Your task to perform on an android device: View the shopping cart on amazon.com. Add energizer triple a to the cart on amazon.com Image 0: 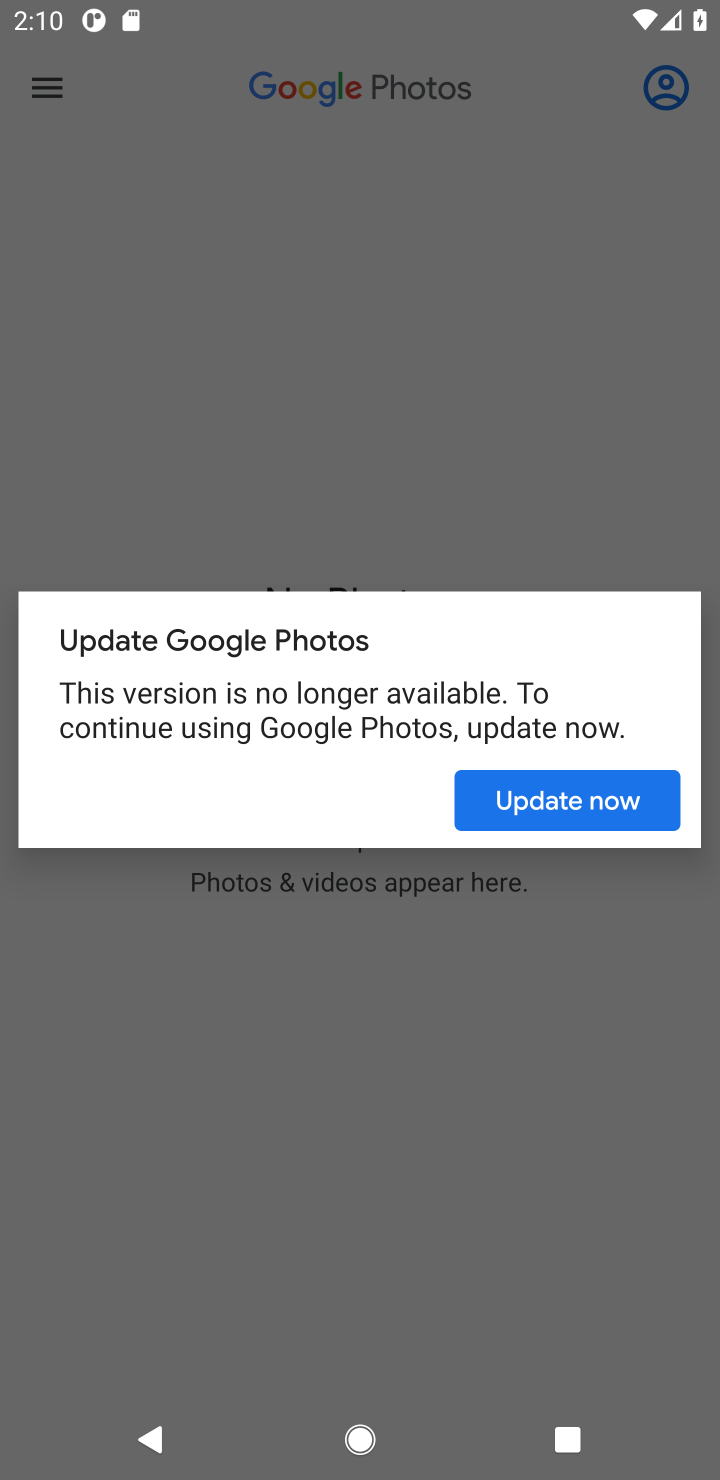
Step 0: press home button
Your task to perform on an android device: View the shopping cart on amazon.com. Add energizer triple a to the cart on amazon.com Image 1: 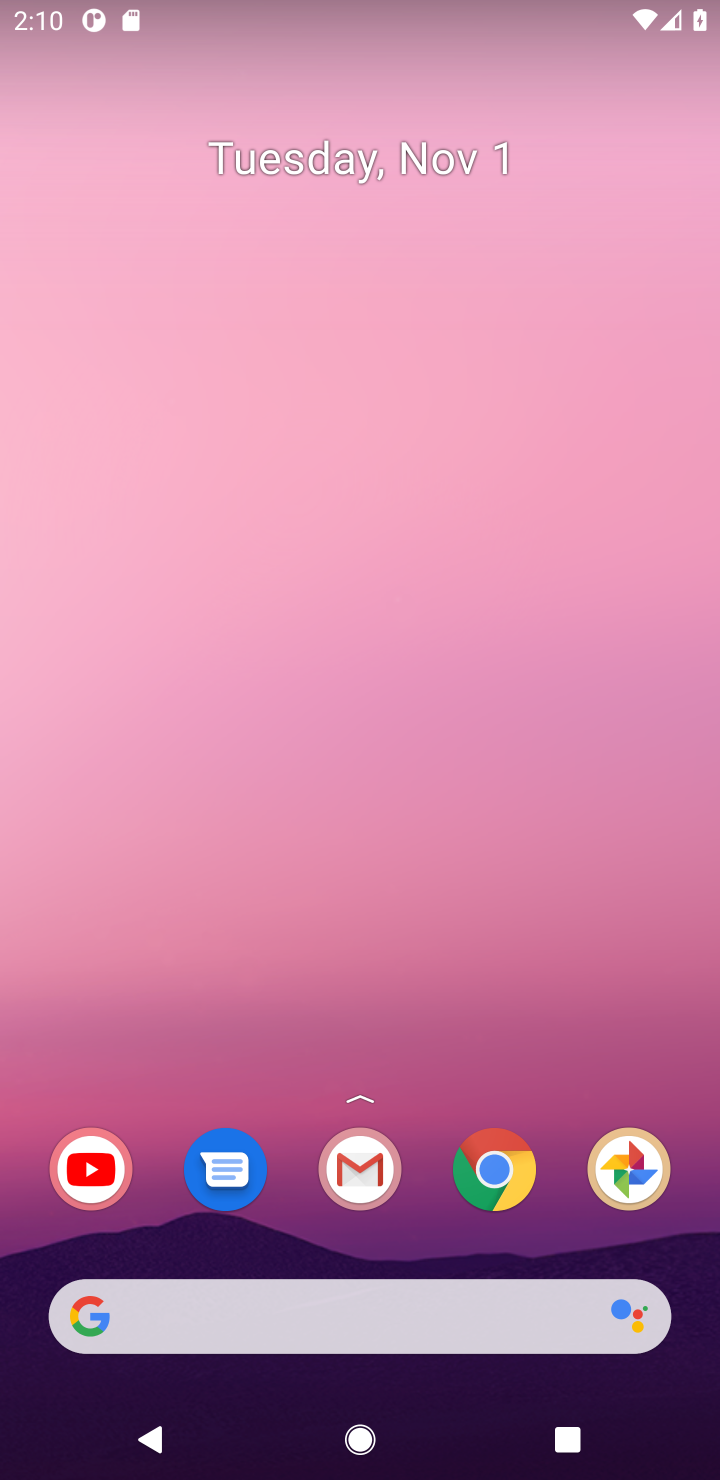
Step 1: drag from (417, 1083) to (424, 45)
Your task to perform on an android device: View the shopping cart on amazon.com. Add energizer triple a to the cart on amazon.com Image 2: 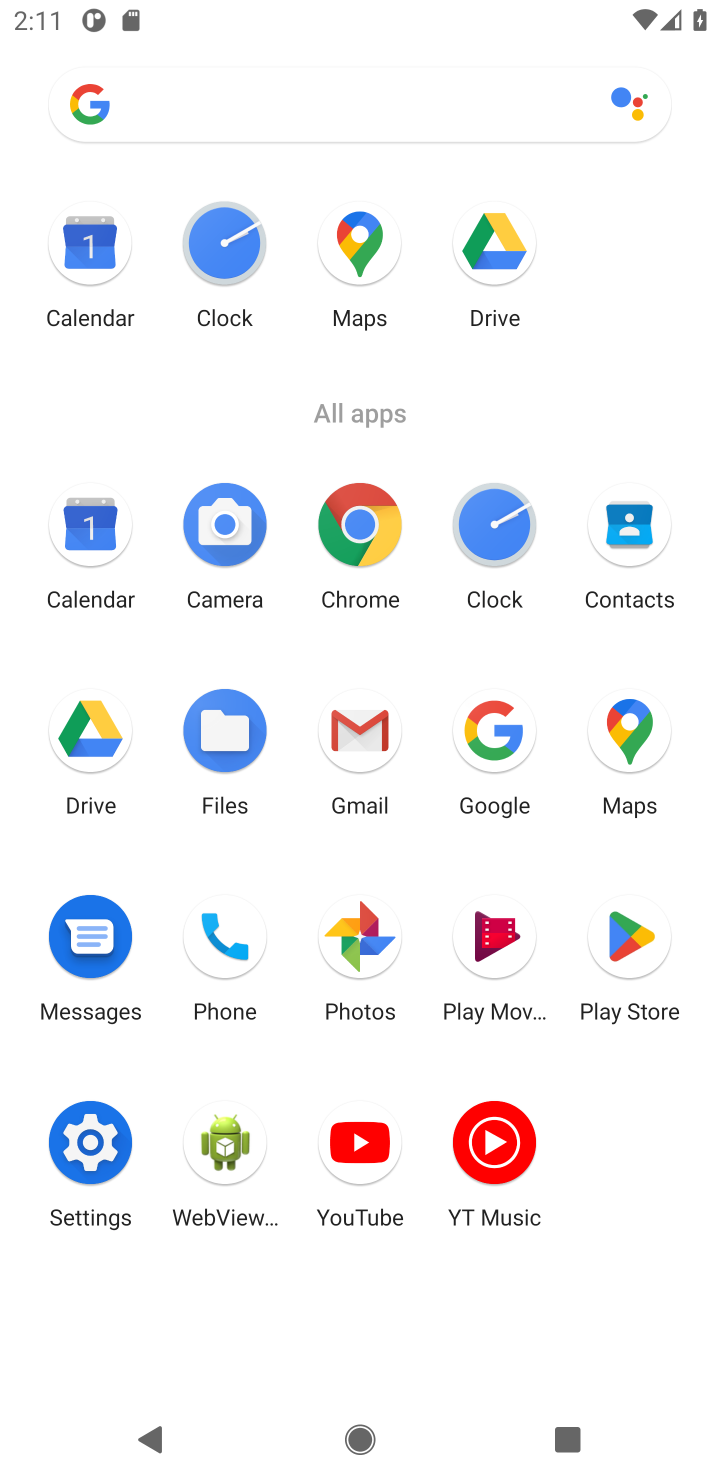
Step 2: click (358, 519)
Your task to perform on an android device: View the shopping cart on amazon.com. Add energizer triple a to the cart on amazon.com Image 3: 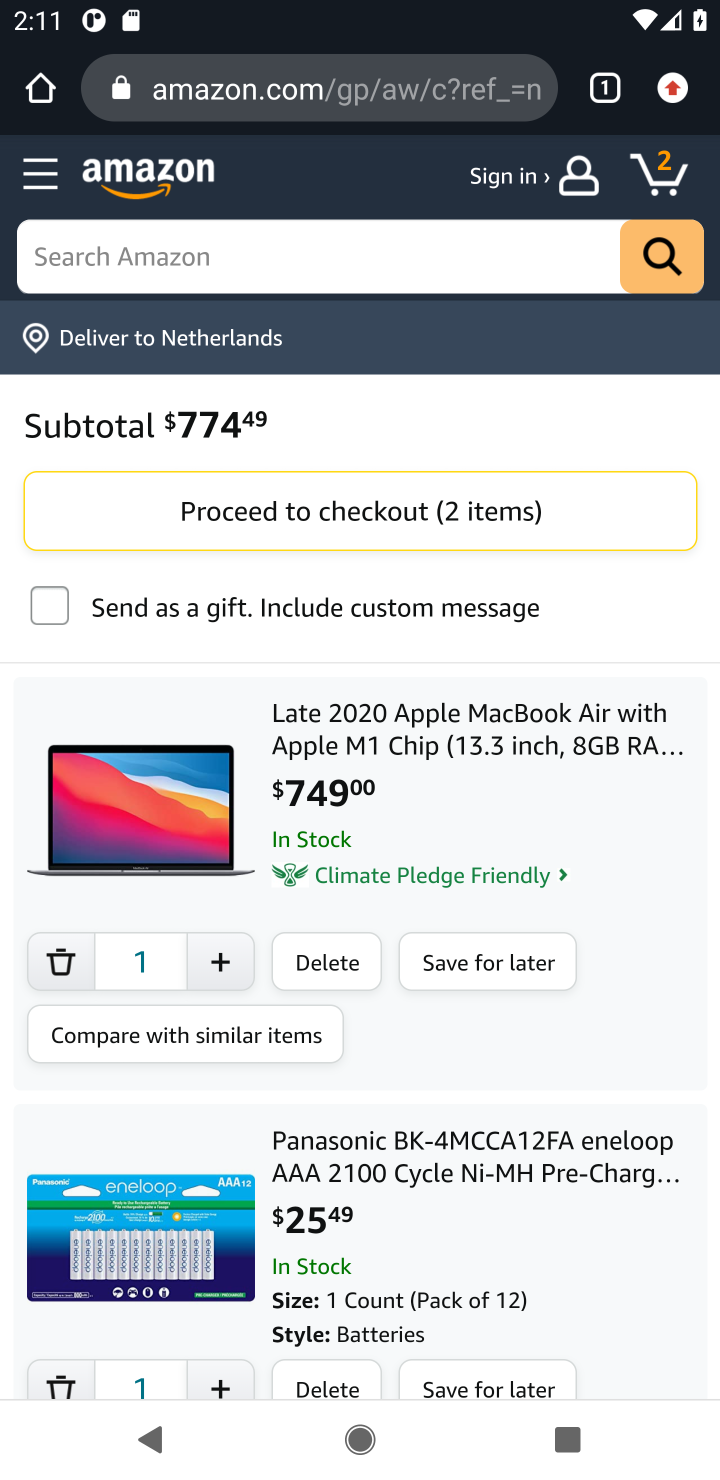
Step 3: click (51, 961)
Your task to perform on an android device: View the shopping cart on amazon.com. Add energizer triple a to the cart on amazon.com Image 4: 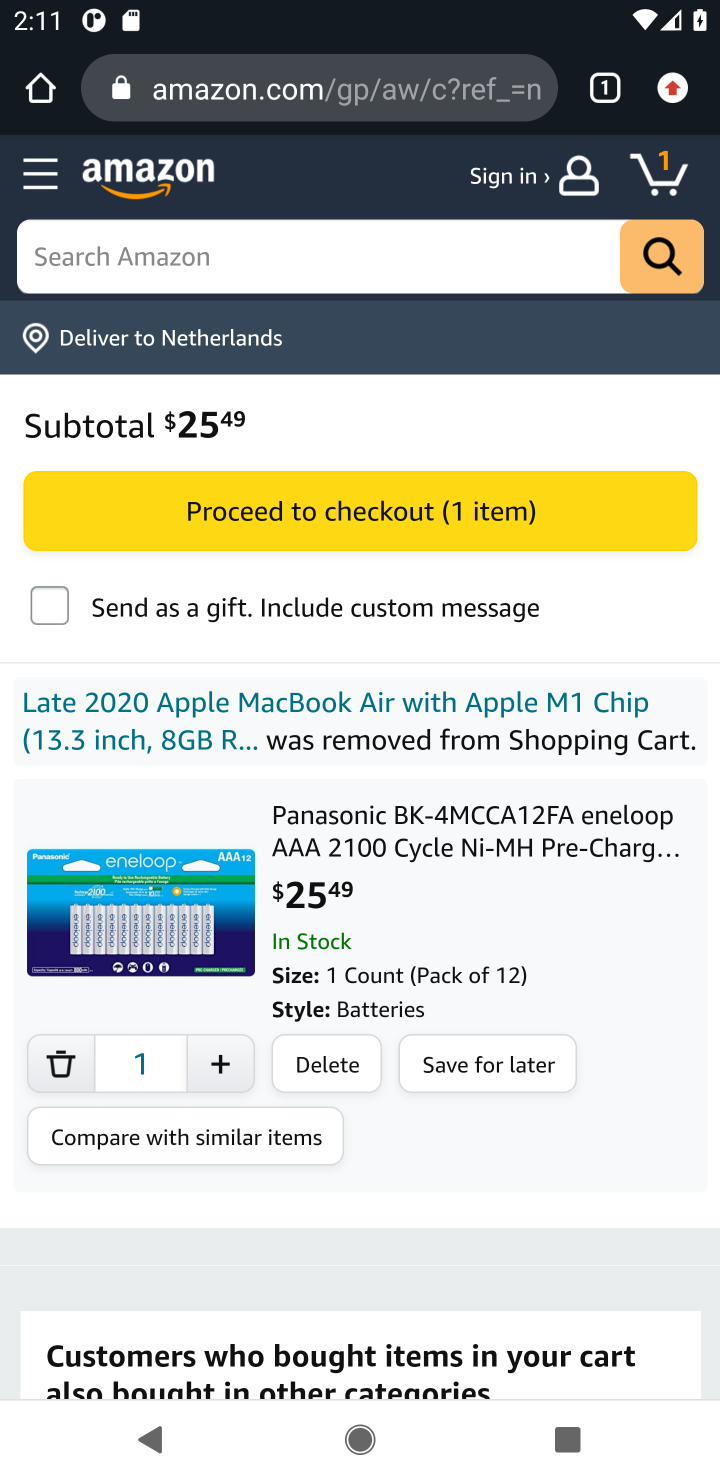
Step 4: click (54, 1068)
Your task to perform on an android device: View the shopping cart on amazon.com. Add energizer triple a to the cart on amazon.com Image 5: 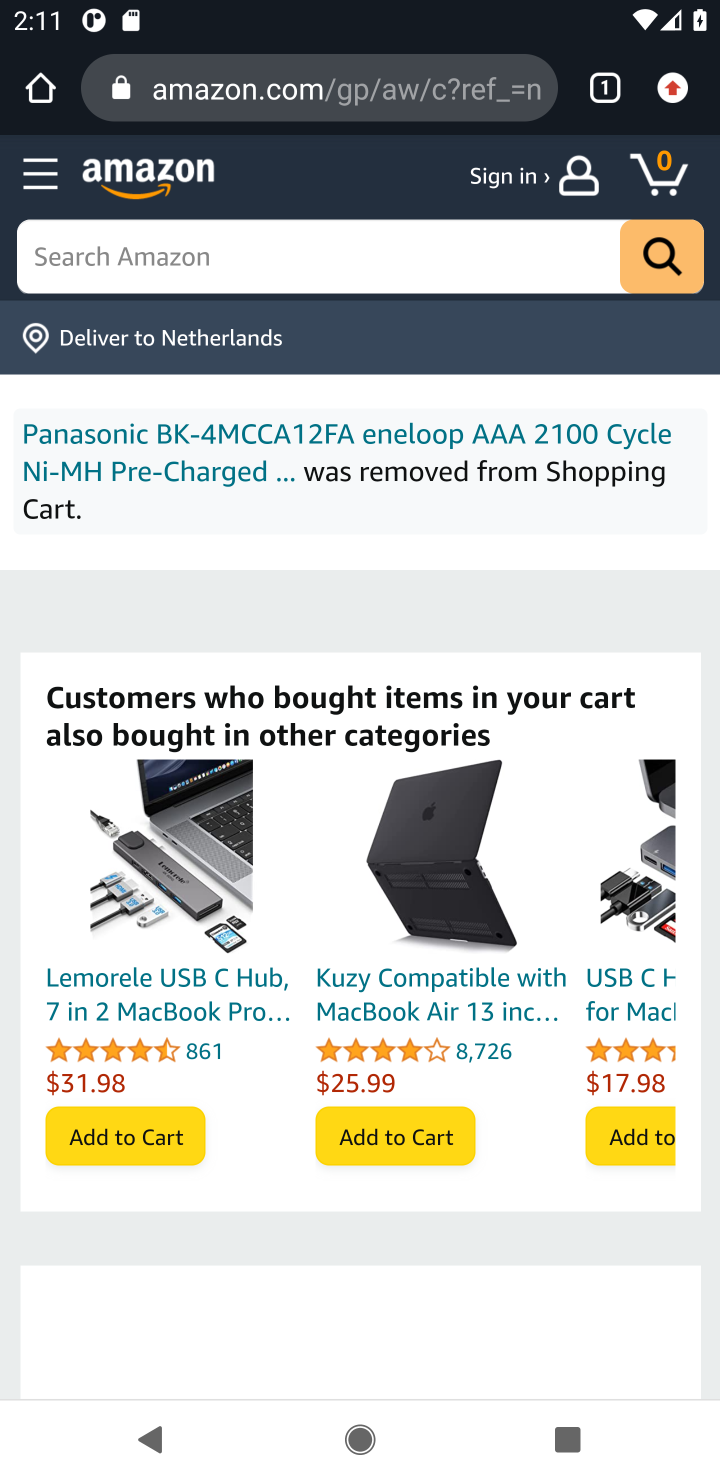
Step 5: click (115, 239)
Your task to perform on an android device: View the shopping cart on amazon.com. Add energizer triple a to the cart on amazon.com Image 6: 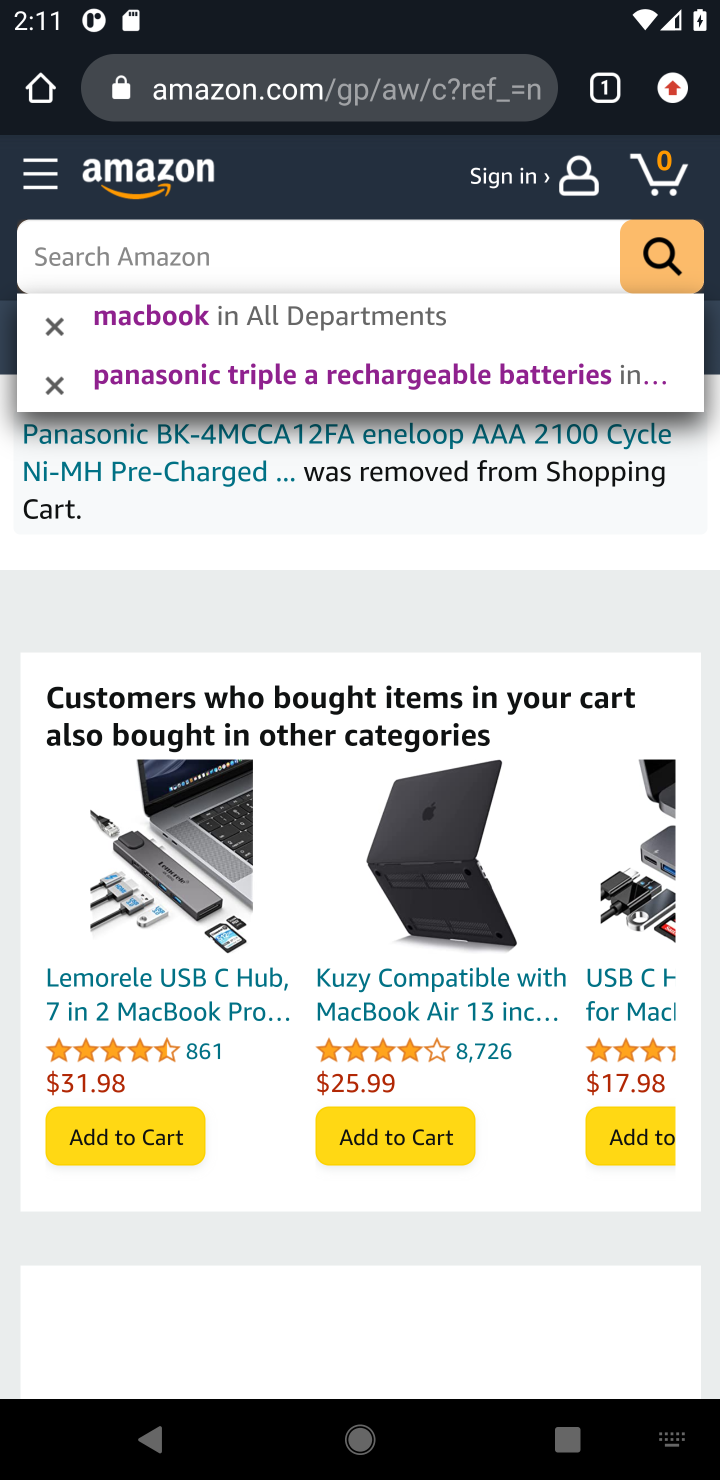
Step 6: click (192, 244)
Your task to perform on an android device: View the shopping cart on amazon.com. Add energizer triple a to the cart on amazon.com Image 7: 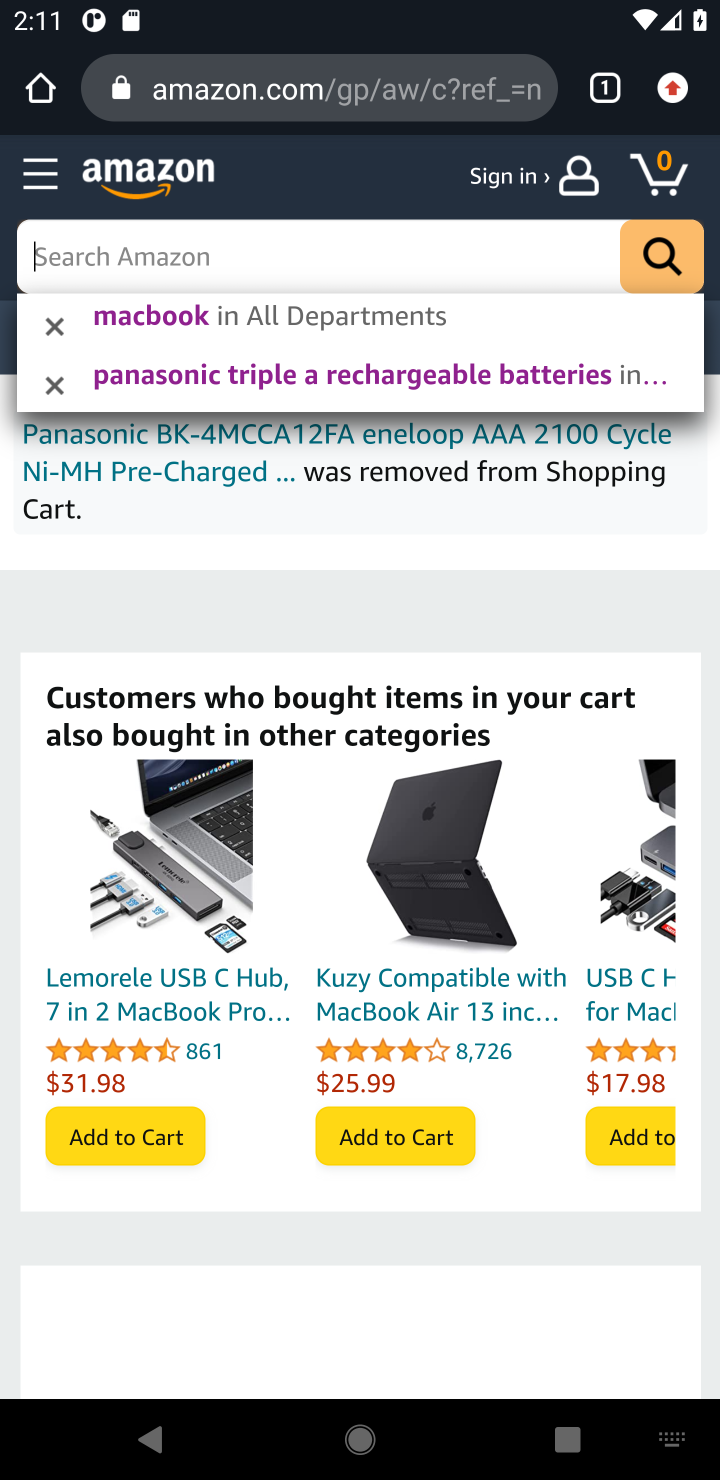
Step 7: type "energizer triple a"
Your task to perform on an android device: View the shopping cart on amazon.com. Add energizer triple a to the cart on amazon.com Image 8: 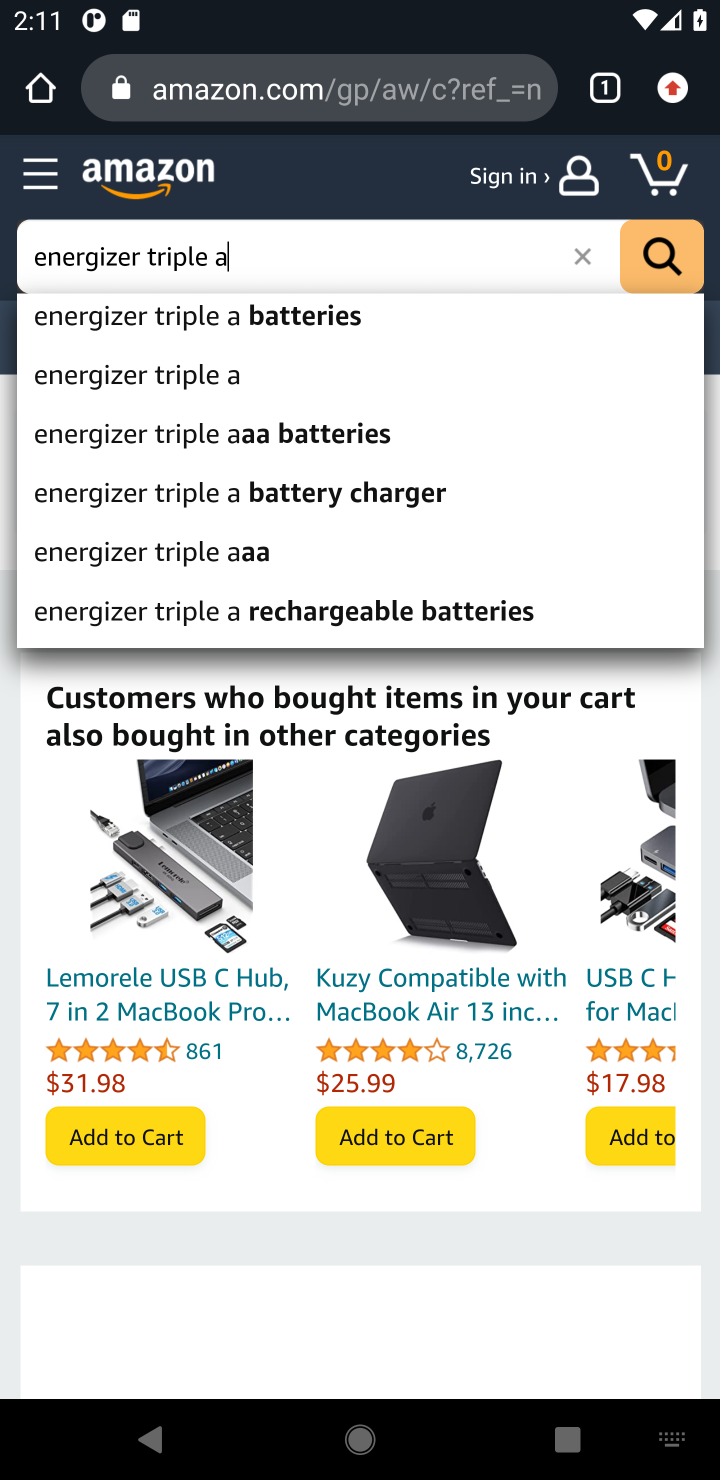
Step 8: type ""
Your task to perform on an android device: View the shopping cart on amazon.com. Add energizer triple a to the cart on amazon.com Image 9: 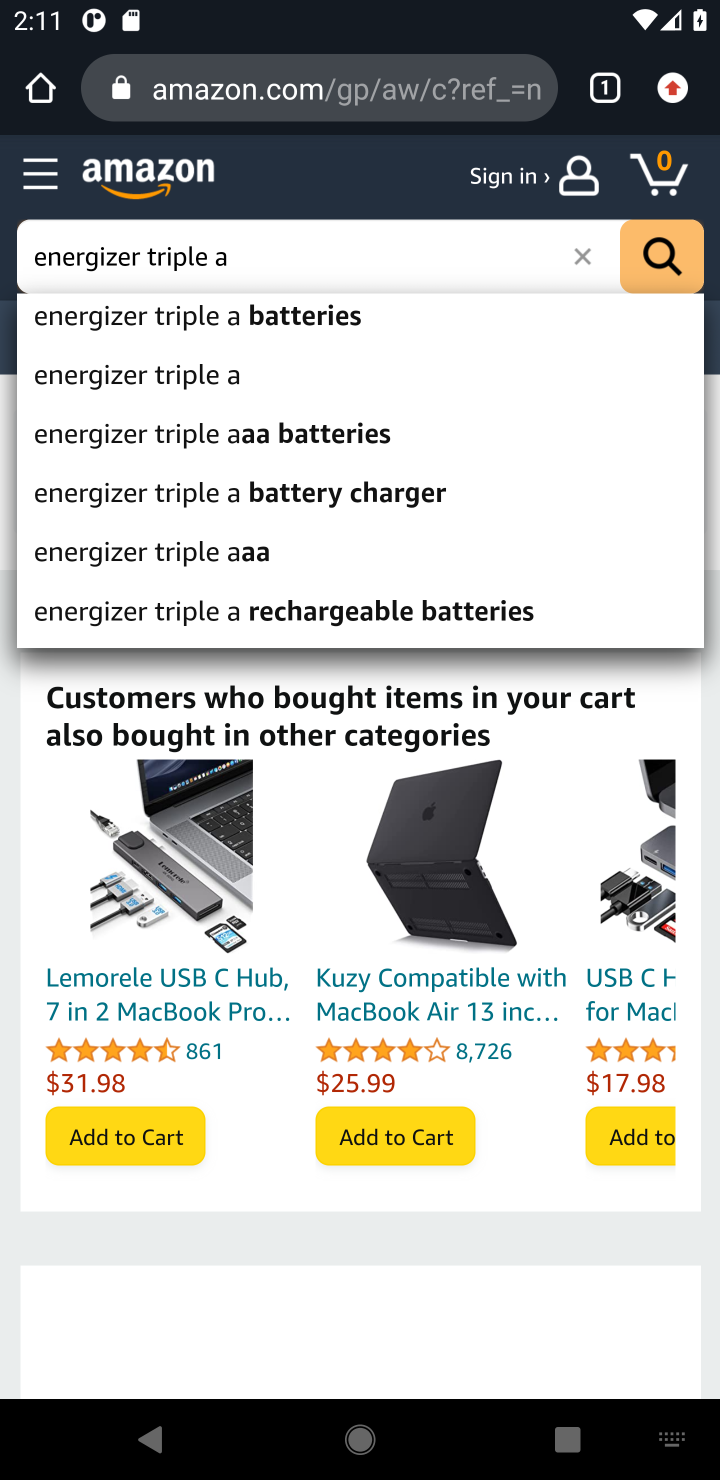
Step 9: click (177, 375)
Your task to perform on an android device: View the shopping cart on amazon.com. Add energizer triple a to the cart on amazon.com Image 10: 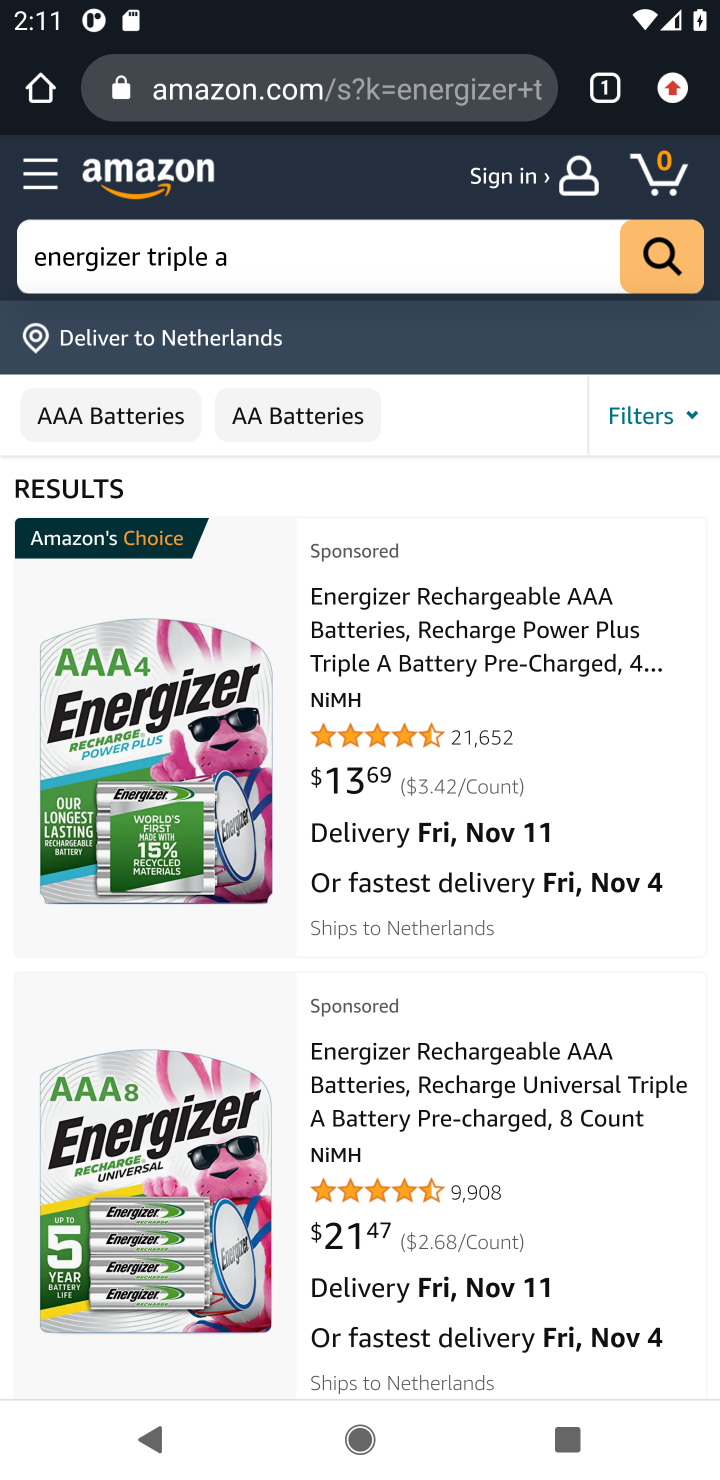
Step 10: click (389, 627)
Your task to perform on an android device: View the shopping cart on amazon.com. Add energizer triple a to the cart on amazon.com Image 11: 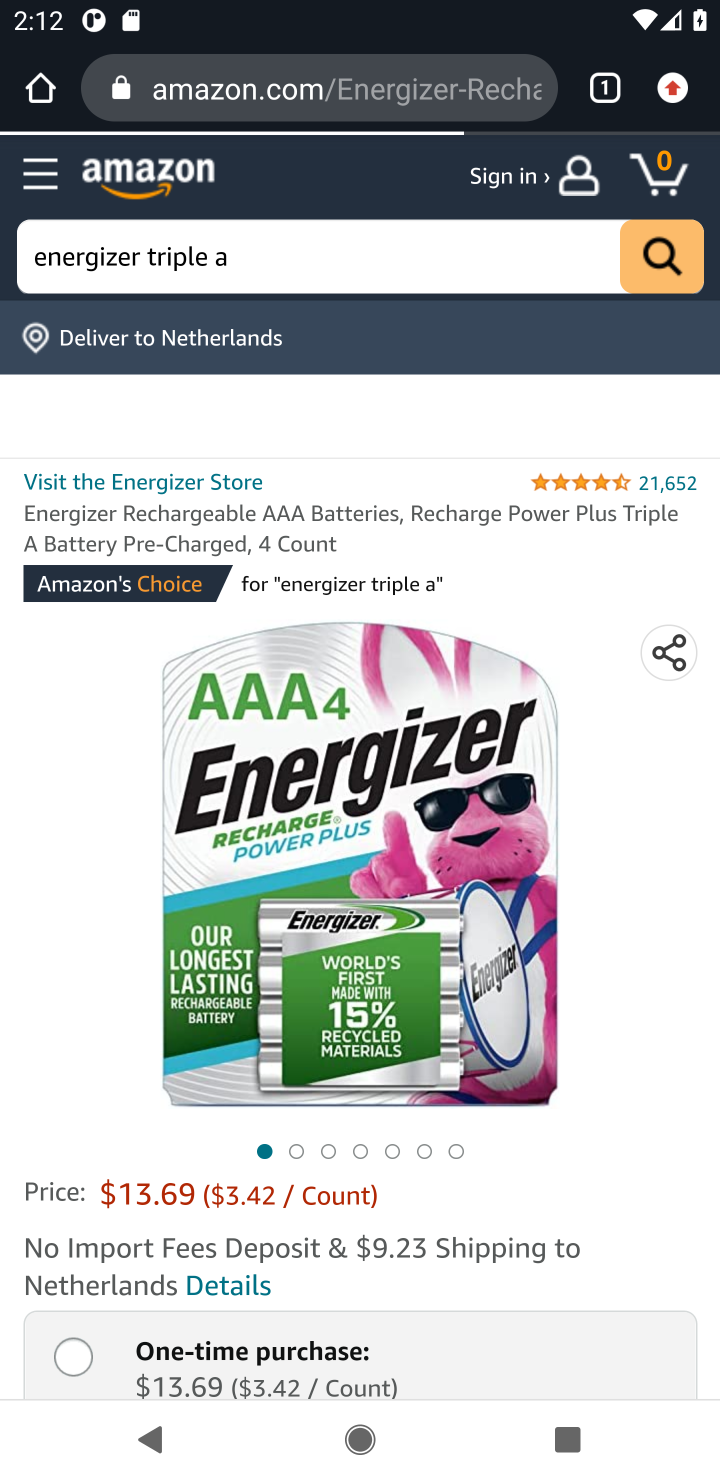
Step 11: drag from (414, 1279) to (414, 445)
Your task to perform on an android device: View the shopping cart on amazon.com. Add energizer triple a to the cart on amazon.com Image 12: 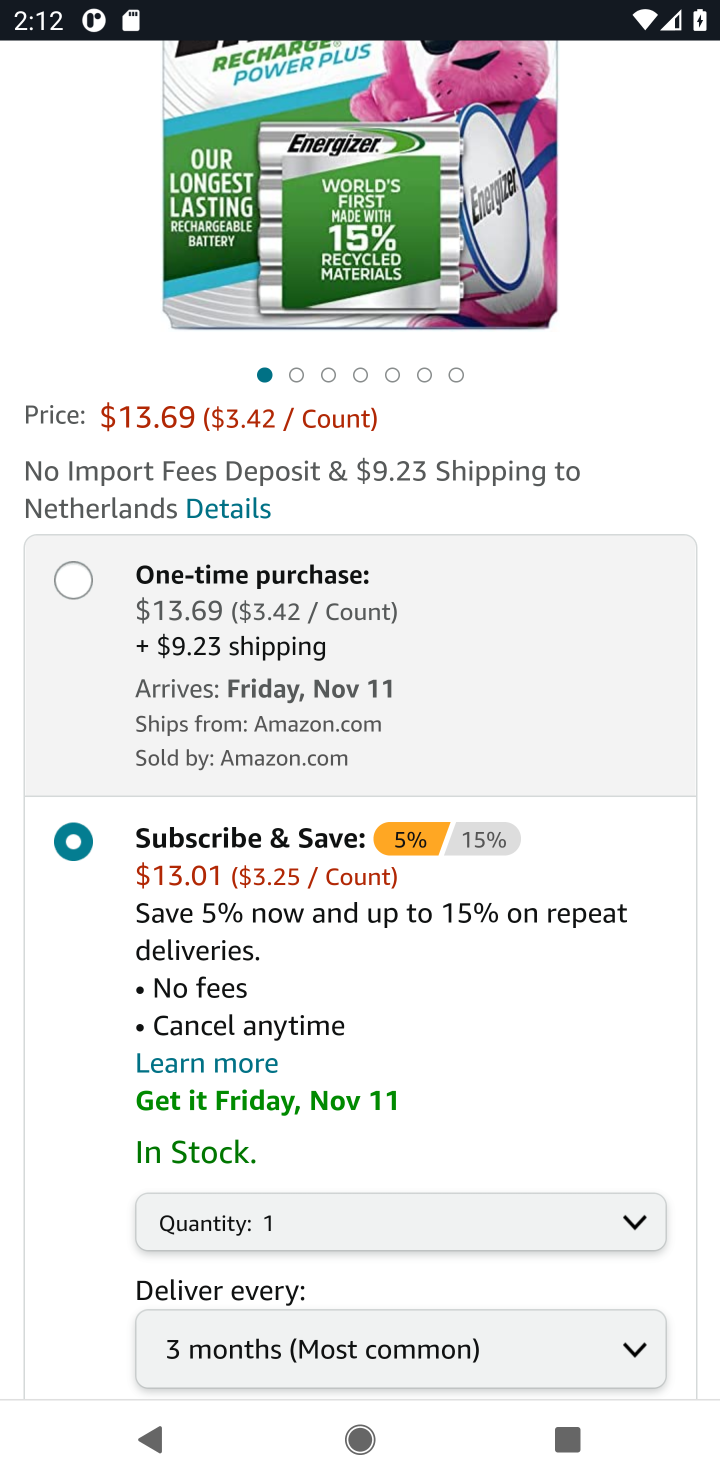
Step 12: drag from (85, 1325) to (140, 638)
Your task to perform on an android device: View the shopping cart on amazon.com. Add energizer triple a to the cart on amazon.com Image 13: 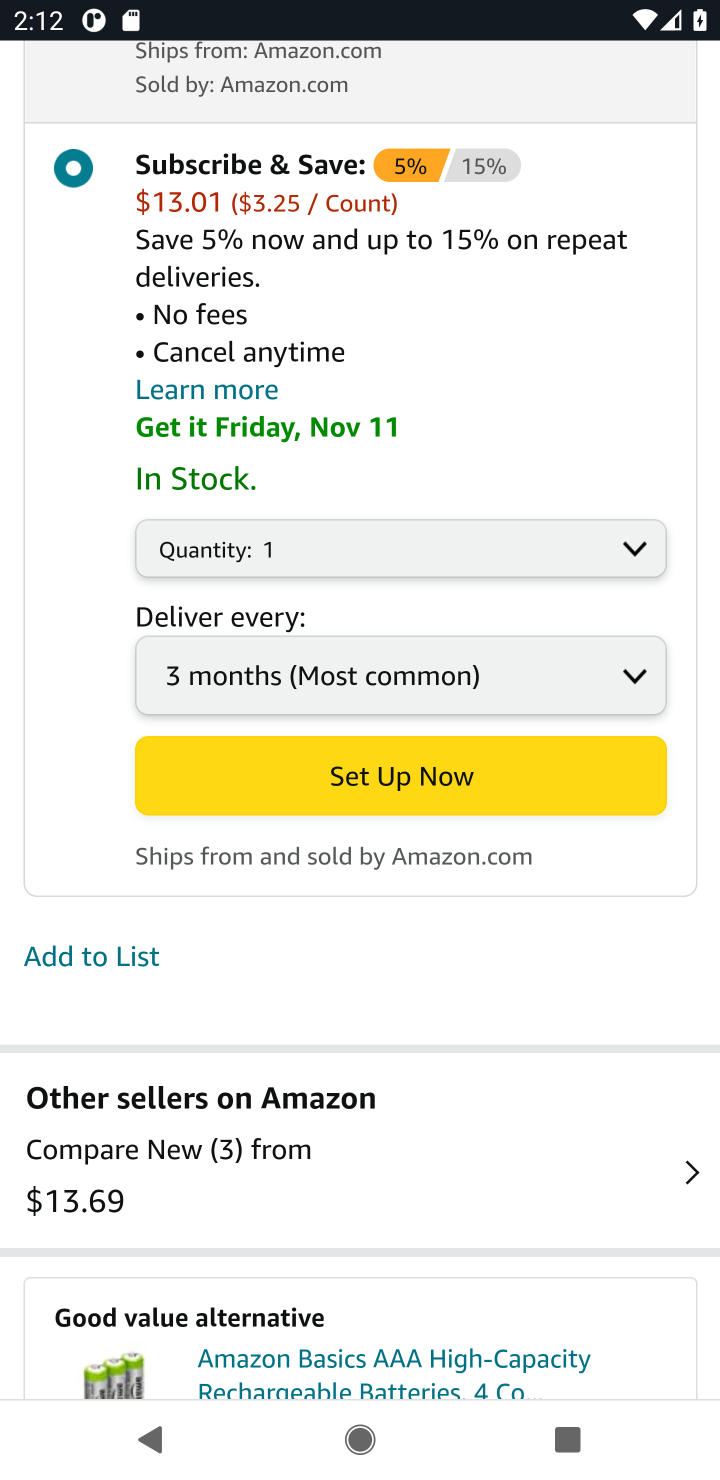
Step 13: drag from (354, 1240) to (374, 735)
Your task to perform on an android device: View the shopping cart on amazon.com. Add energizer triple a to the cart on amazon.com Image 14: 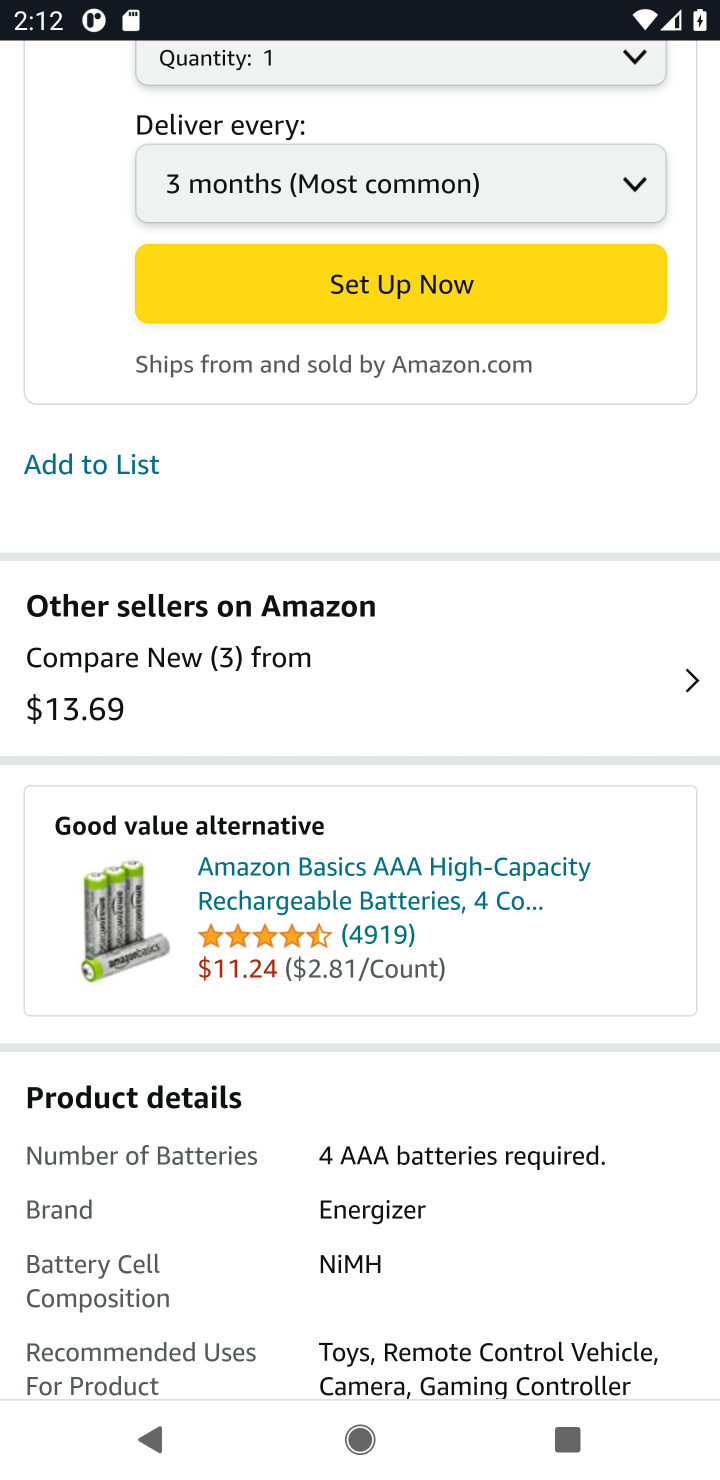
Step 14: drag from (276, 1297) to (297, 652)
Your task to perform on an android device: View the shopping cart on amazon.com. Add energizer triple a to the cart on amazon.com Image 15: 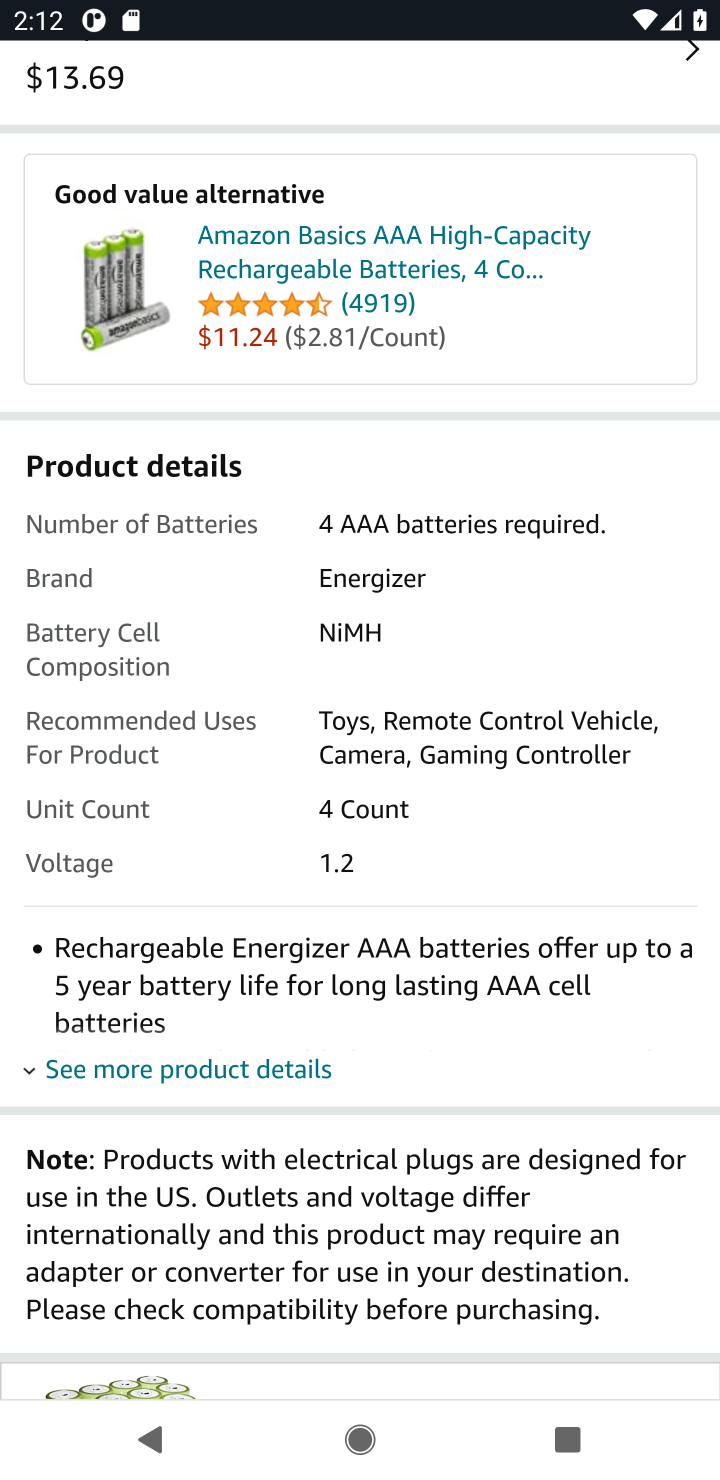
Step 15: drag from (305, 334) to (300, 1247)
Your task to perform on an android device: View the shopping cart on amazon.com. Add energizer triple a to the cart on amazon.com Image 16: 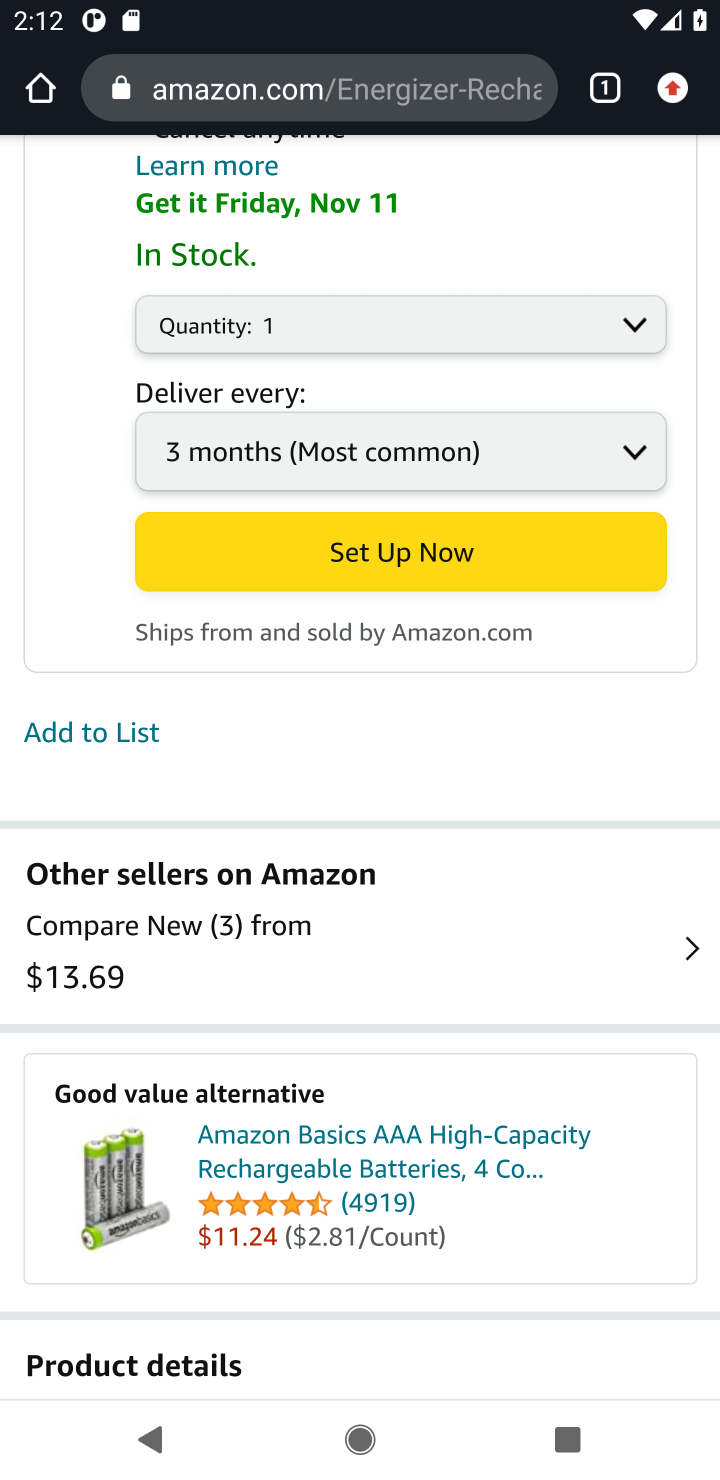
Step 16: drag from (84, 270) to (152, 1271)
Your task to perform on an android device: View the shopping cart on amazon.com. Add energizer triple a to the cart on amazon.com Image 17: 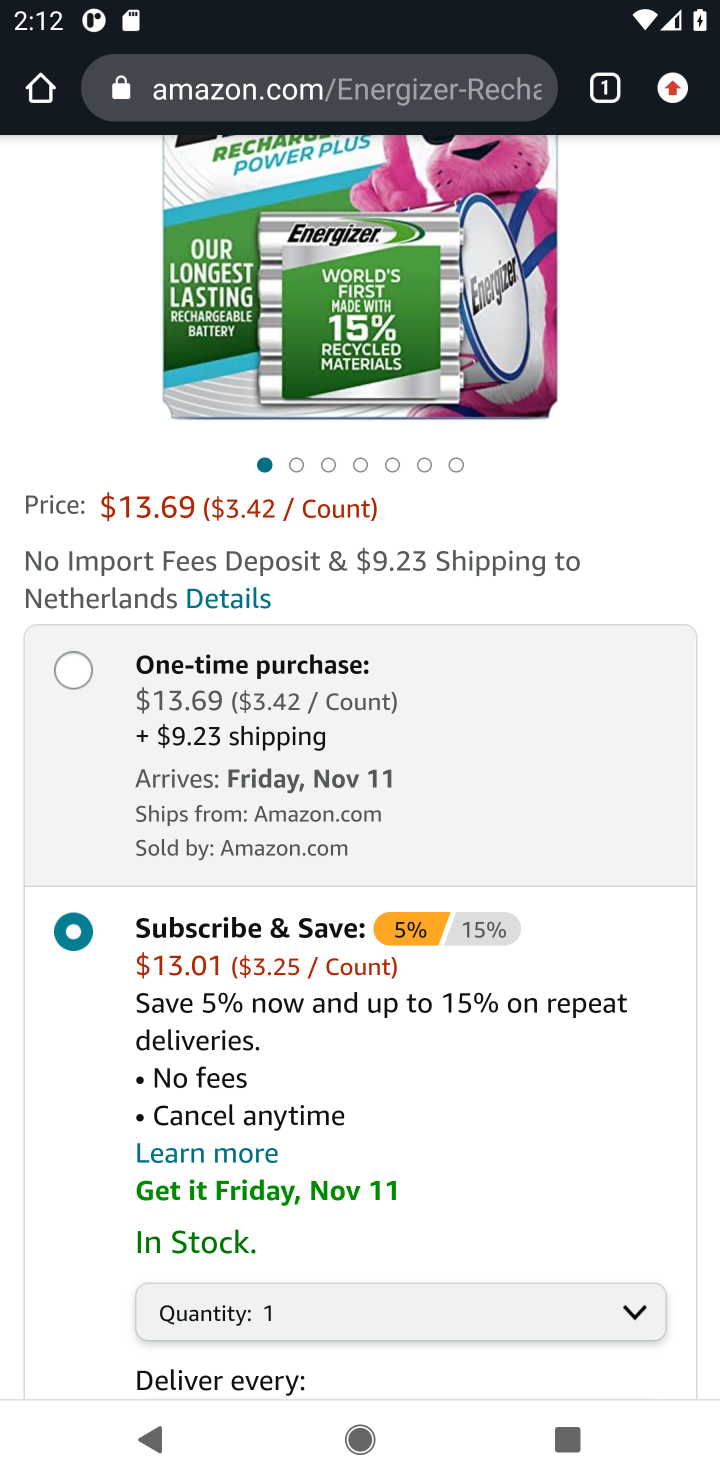
Step 17: drag from (104, 287) to (110, 1325)
Your task to perform on an android device: View the shopping cart on amazon.com. Add energizer triple a to the cart on amazon.com Image 18: 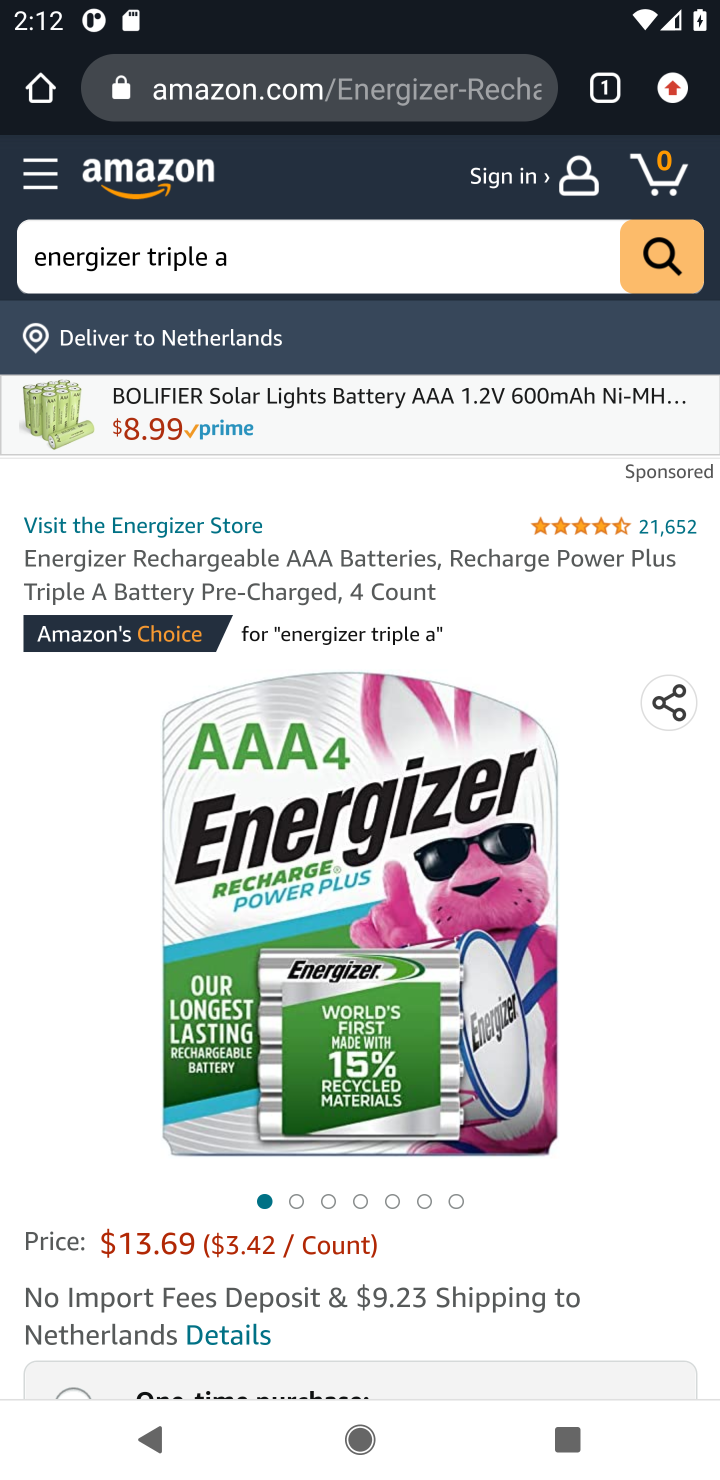
Step 18: press back button
Your task to perform on an android device: View the shopping cart on amazon.com. Add energizer triple a to the cart on amazon.com Image 19: 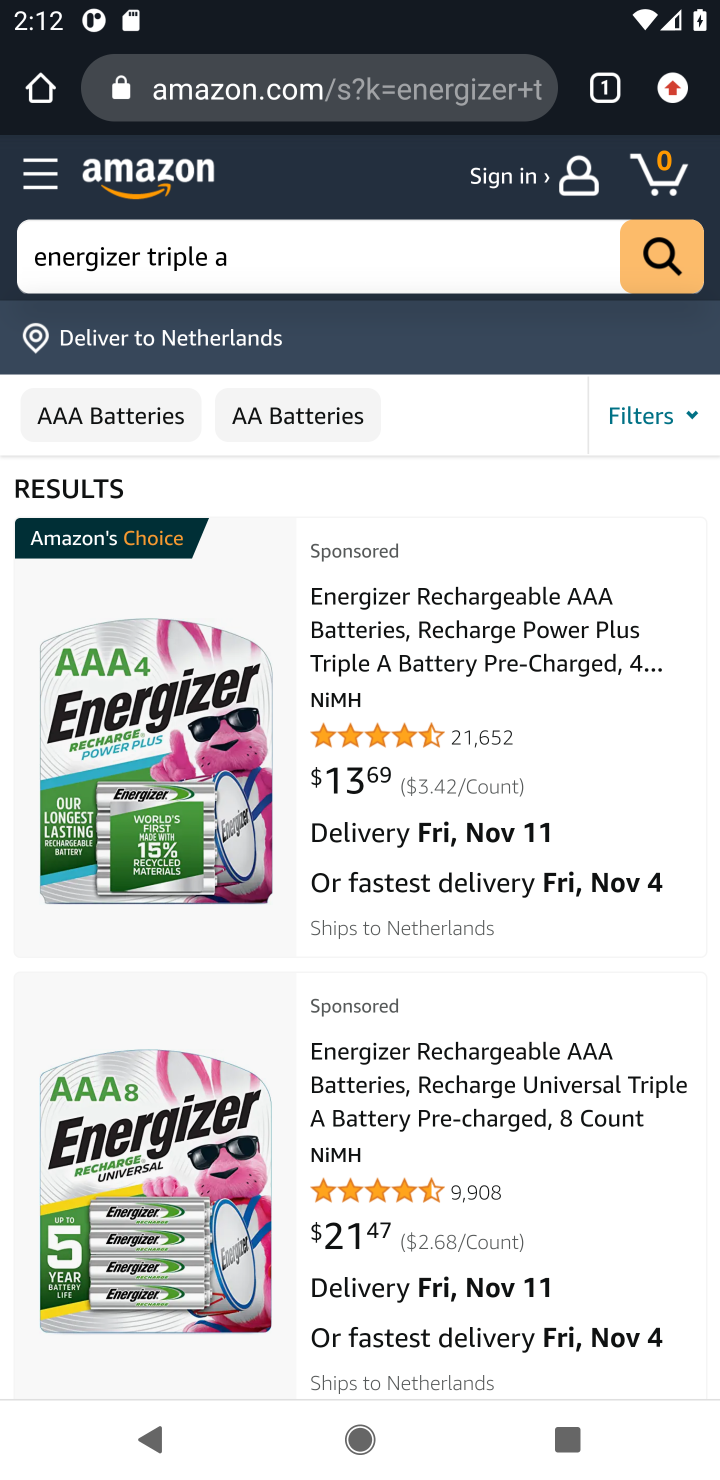
Step 19: click (387, 1092)
Your task to perform on an android device: View the shopping cart on amazon.com. Add energizer triple a to the cart on amazon.com Image 20: 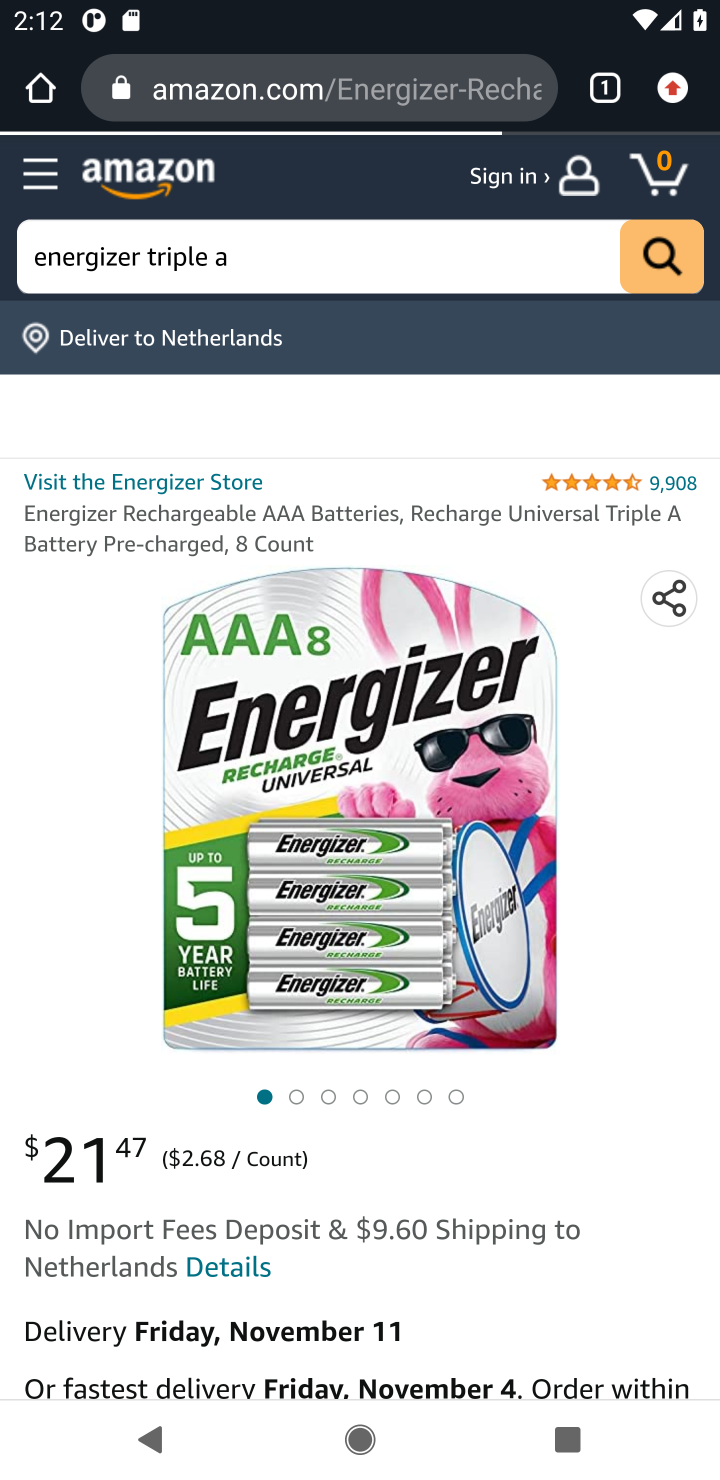
Step 20: drag from (514, 1299) to (495, 503)
Your task to perform on an android device: View the shopping cart on amazon.com. Add energizer triple a to the cart on amazon.com Image 21: 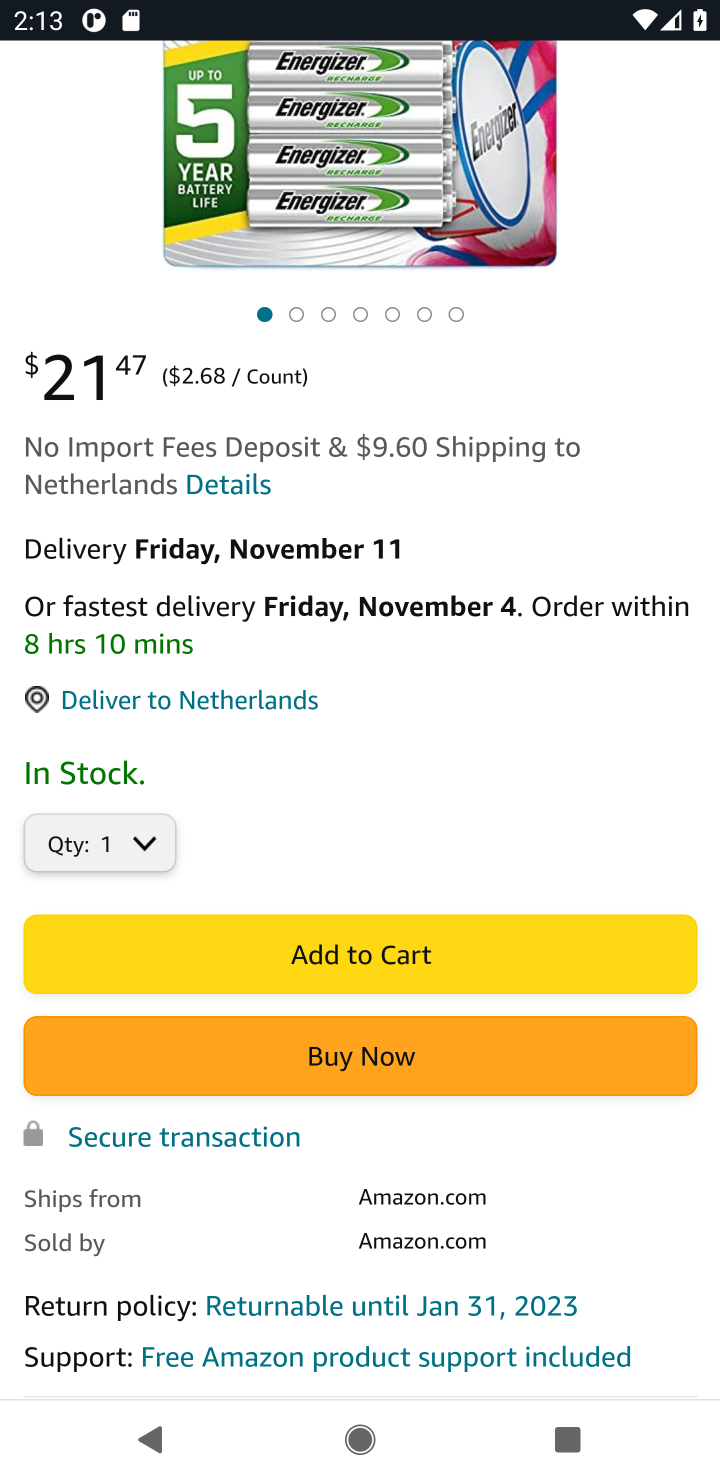
Step 21: click (372, 946)
Your task to perform on an android device: View the shopping cart on amazon.com. Add energizer triple a to the cart on amazon.com Image 22: 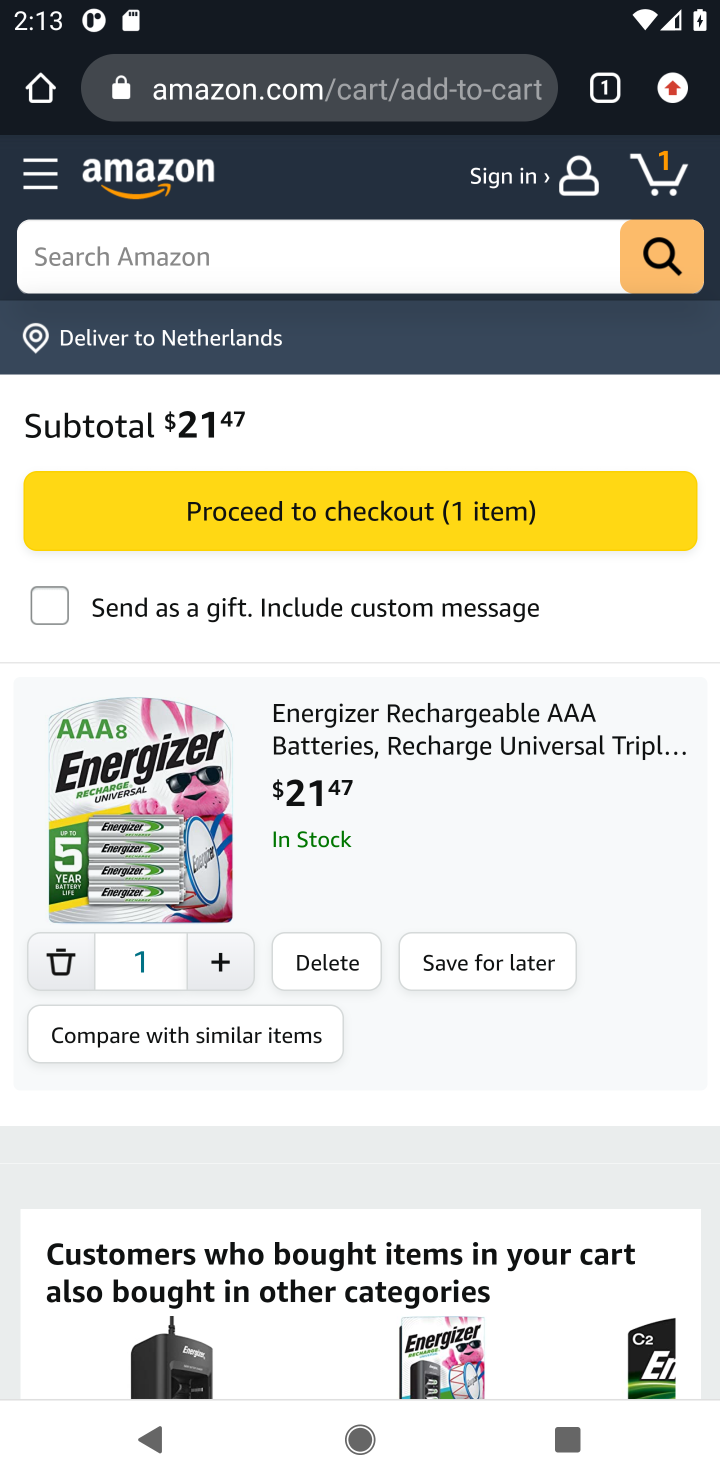
Step 22: task complete